Your task to perform on an android device: Add razer blackwidow to the cart on walmart.com Image 0: 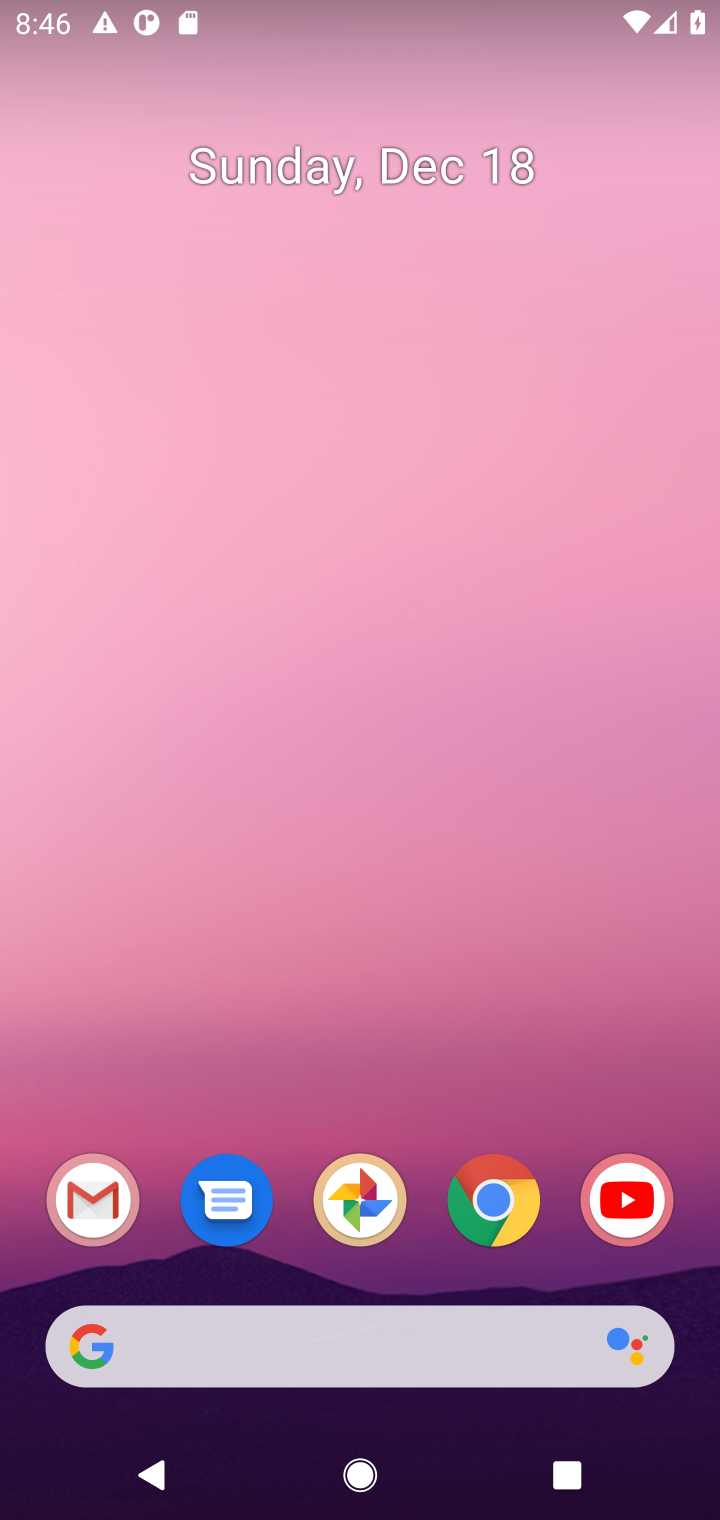
Step 0: click (489, 1209)
Your task to perform on an android device: Add razer blackwidow to the cart on walmart.com Image 1: 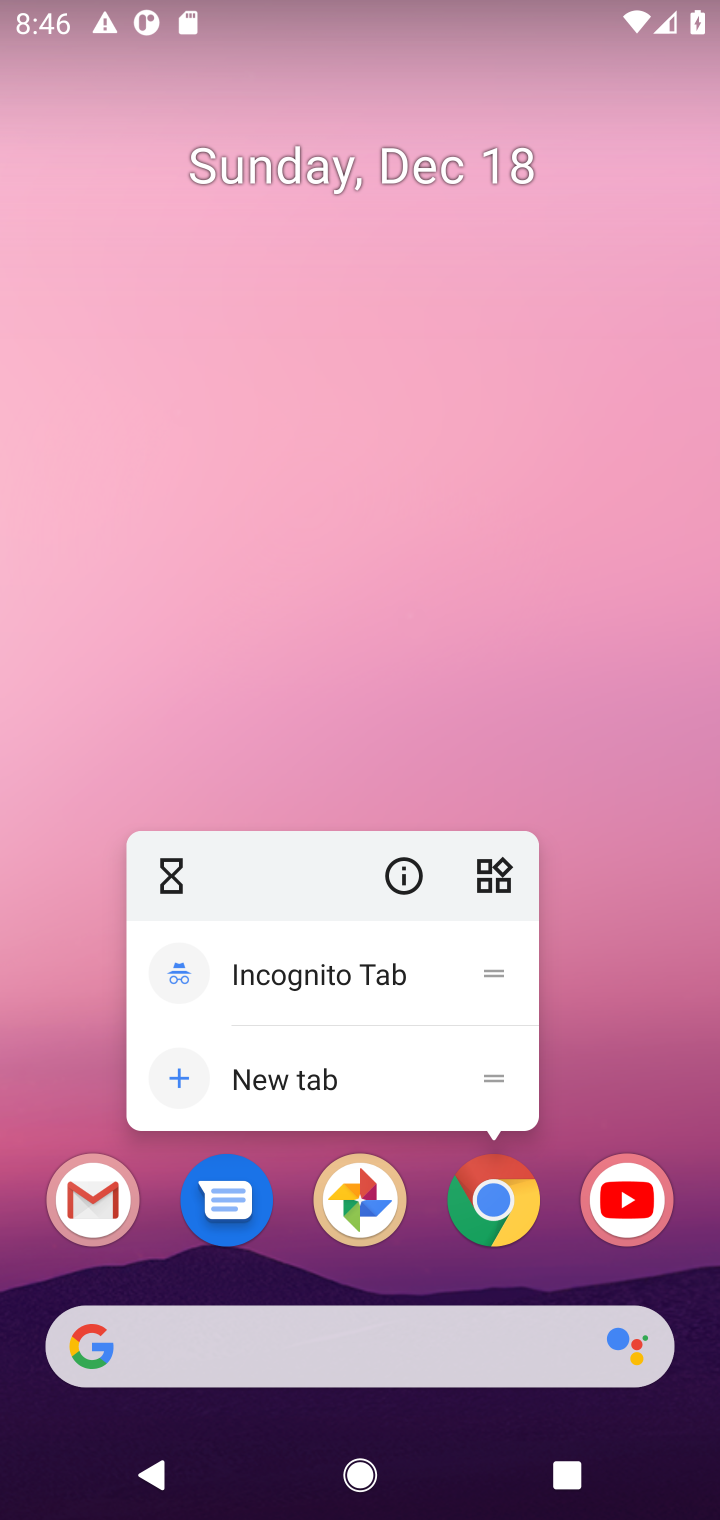
Step 1: click (489, 1209)
Your task to perform on an android device: Add razer blackwidow to the cart on walmart.com Image 2: 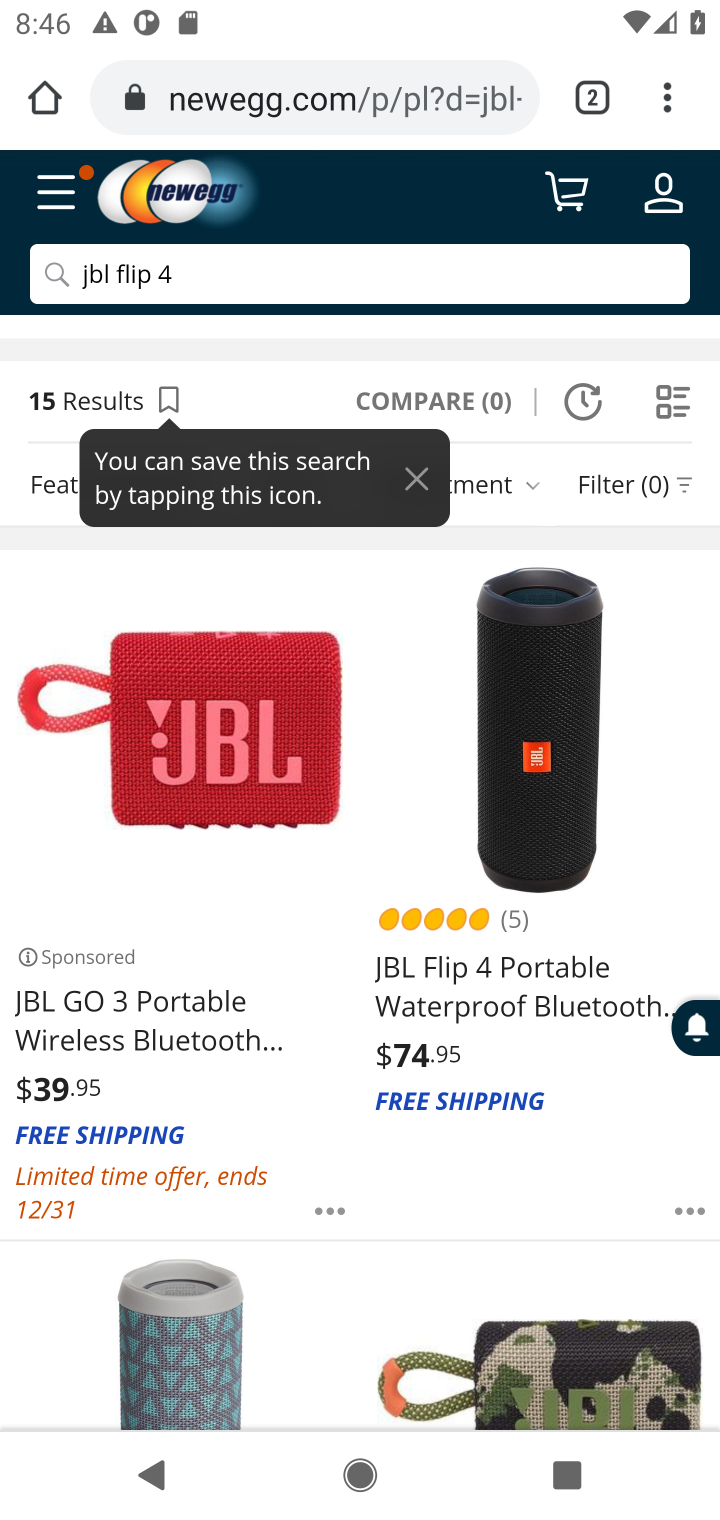
Step 2: click (205, 99)
Your task to perform on an android device: Add razer blackwidow to the cart on walmart.com Image 3: 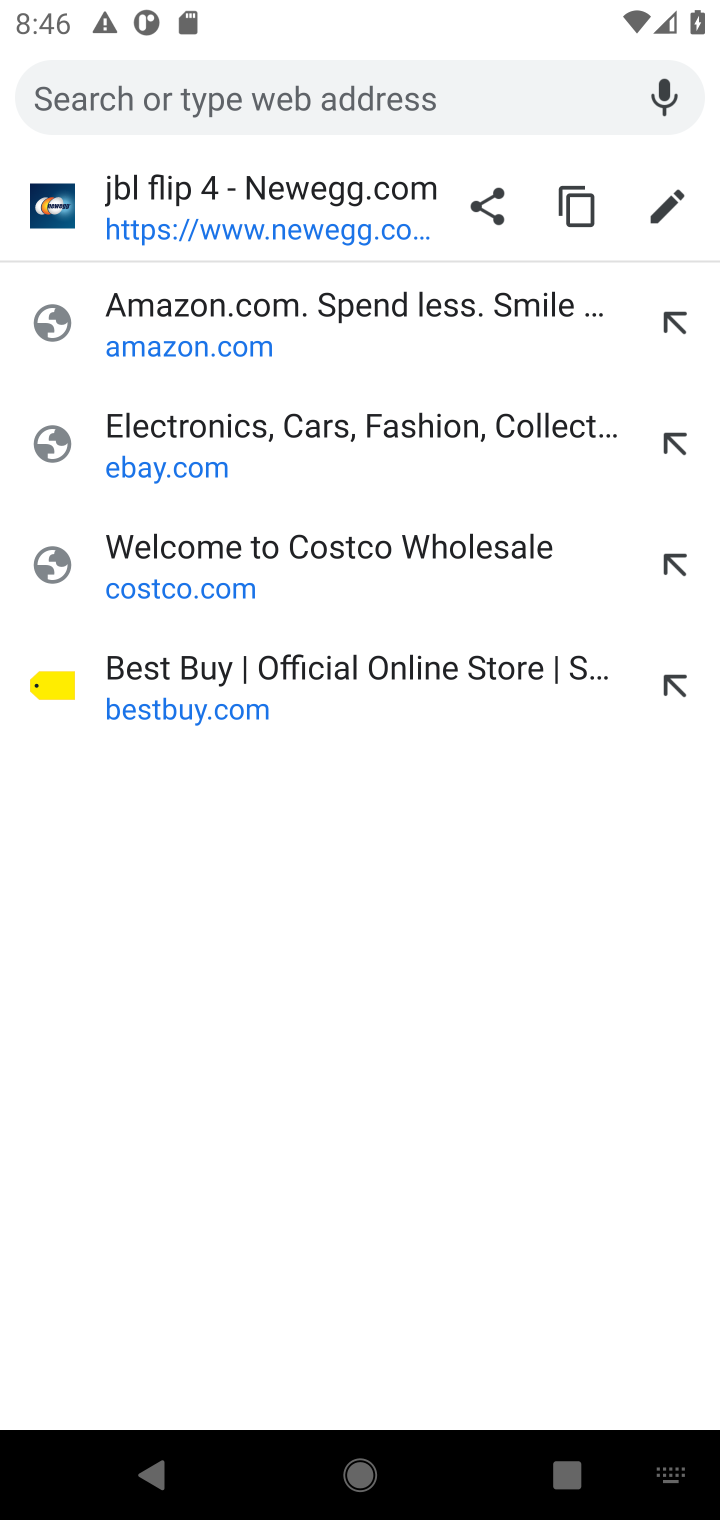
Step 3: type "walmart.com"
Your task to perform on an android device: Add razer blackwidow to the cart on walmart.com Image 4: 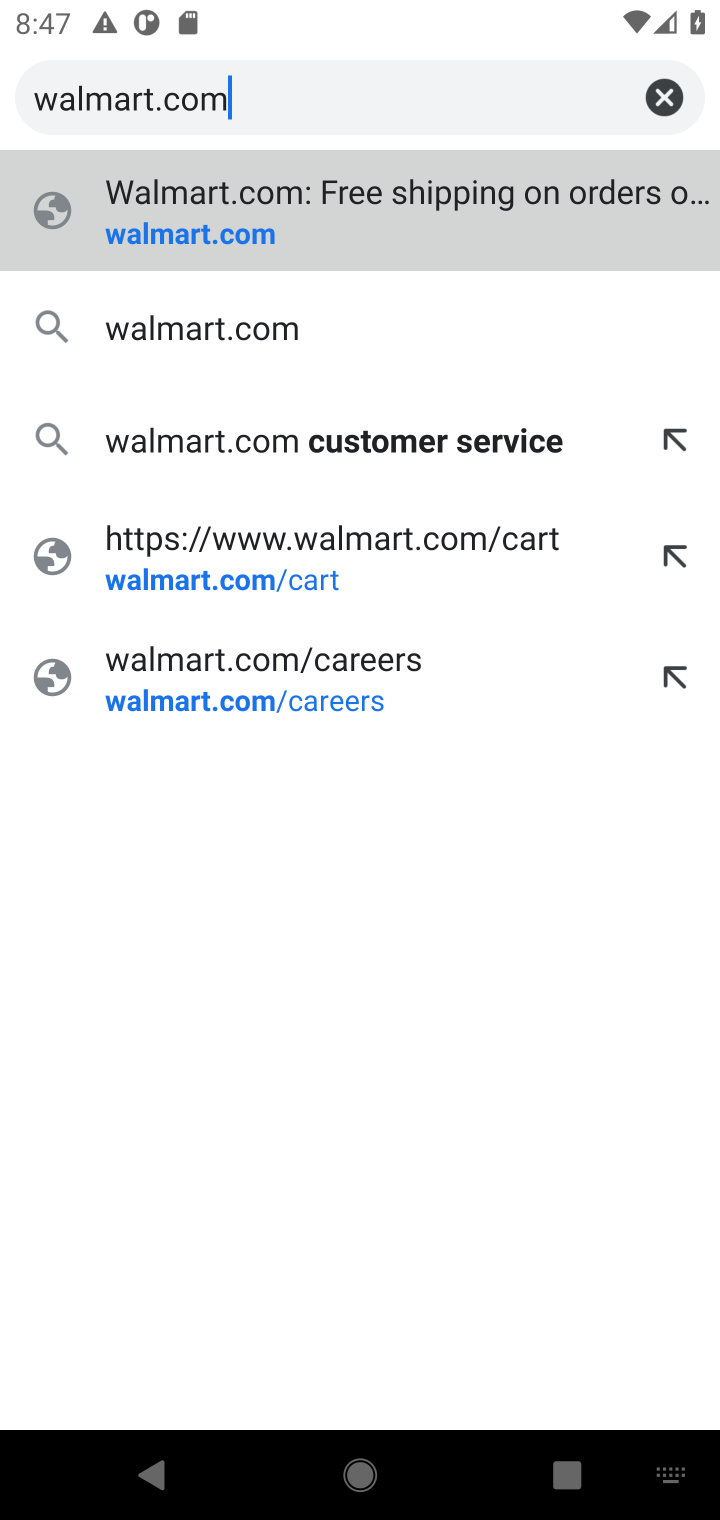
Step 4: click (142, 239)
Your task to perform on an android device: Add razer blackwidow to the cart on walmart.com Image 5: 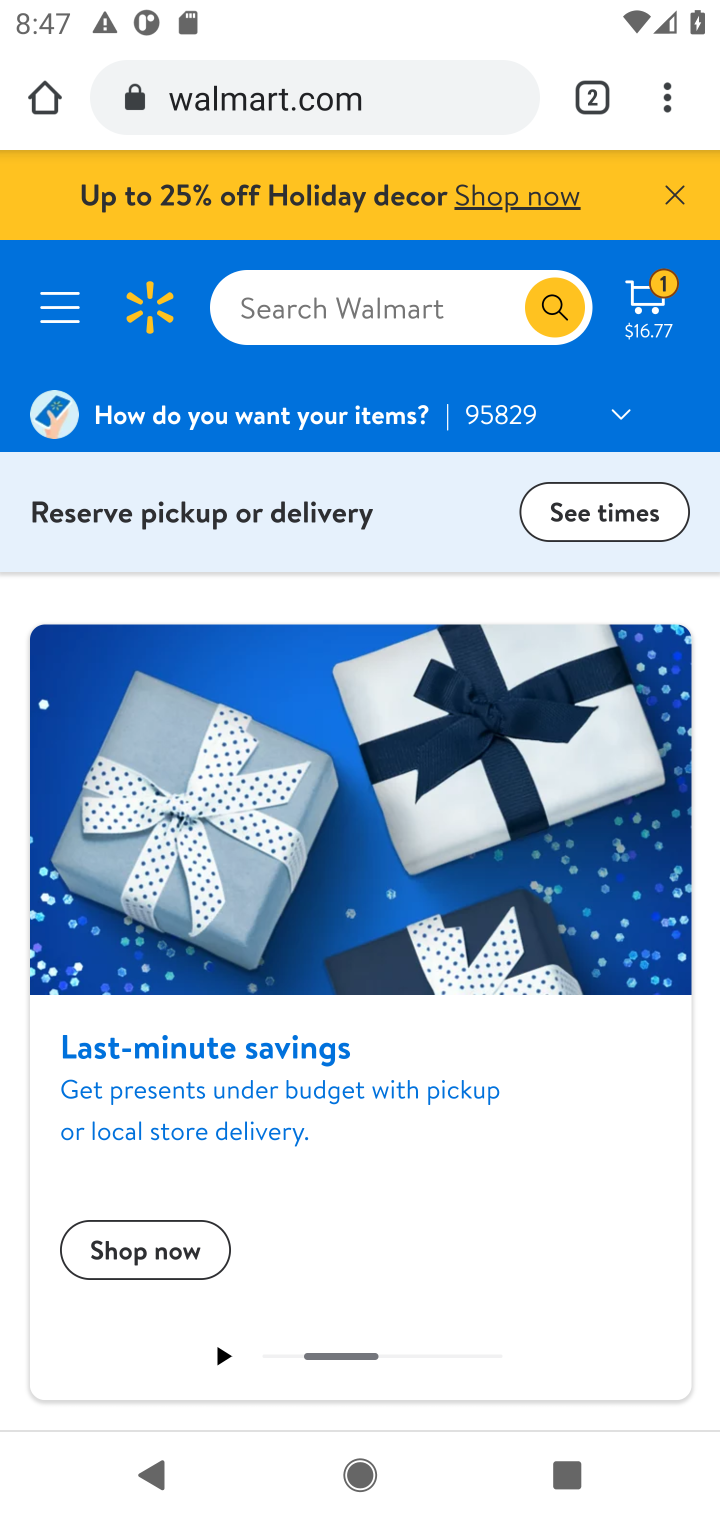
Step 5: click (309, 319)
Your task to perform on an android device: Add razer blackwidow to the cart on walmart.com Image 6: 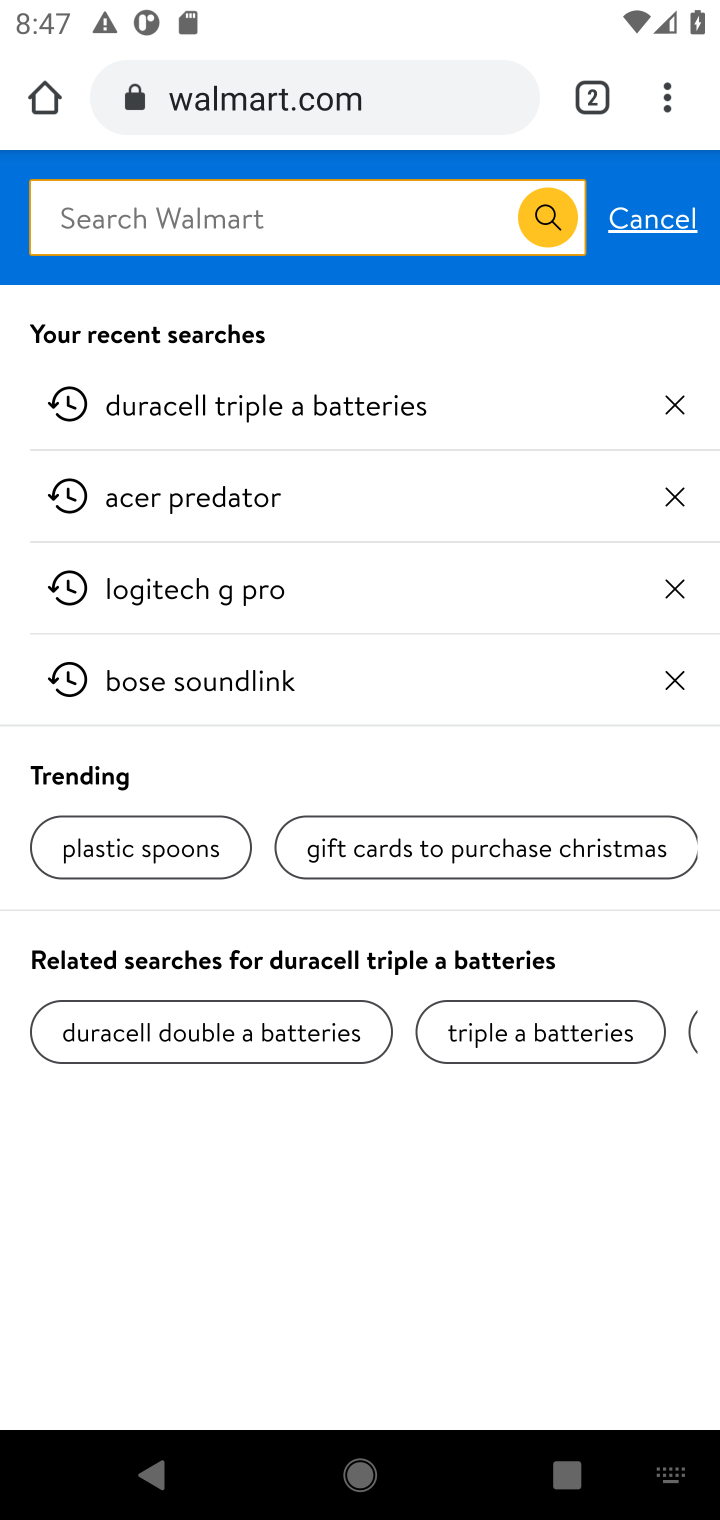
Step 6: type "razer blackwidow"
Your task to perform on an android device: Add razer blackwidow to the cart on walmart.com Image 7: 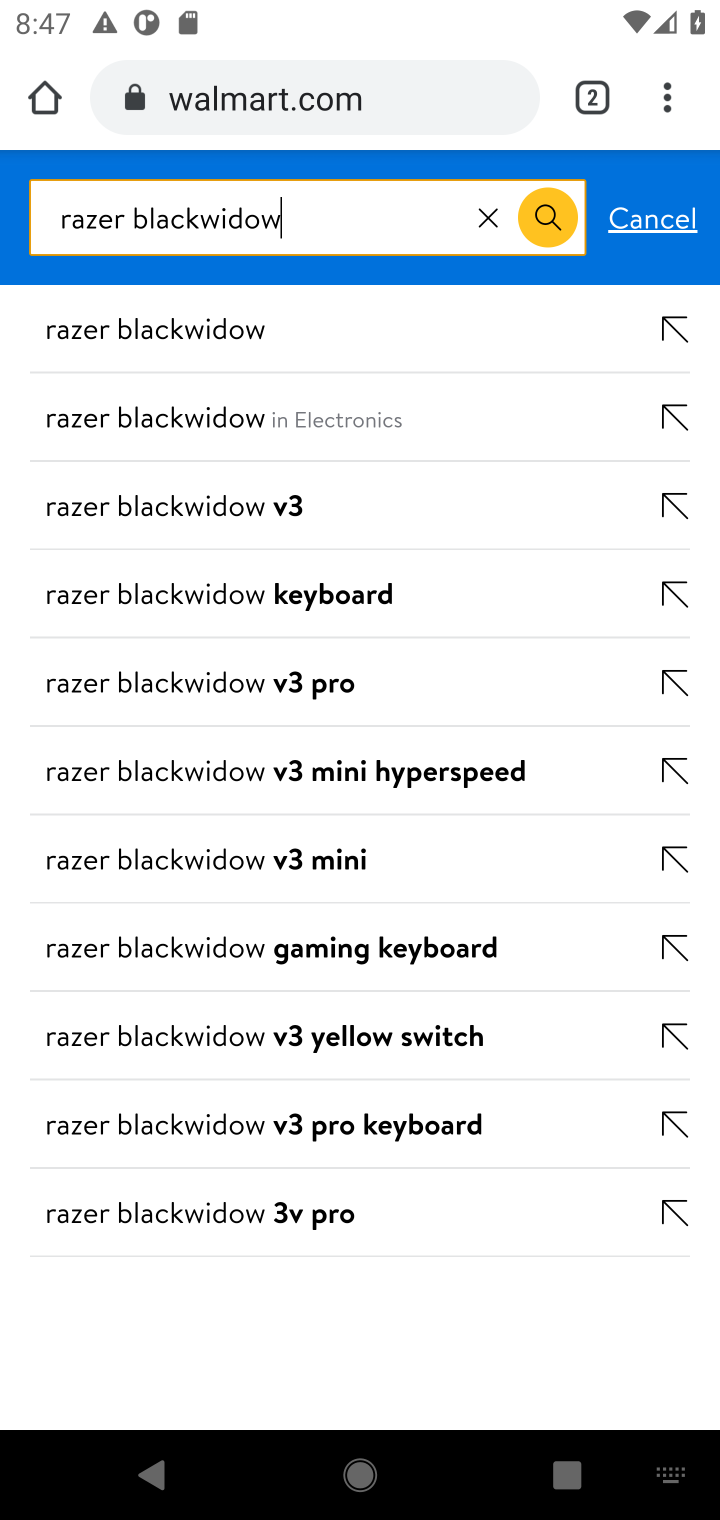
Step 7: click (112, 319)
Your task to perform on an android device: Add razer blackwidow to the cart on walmart.com Image 8: 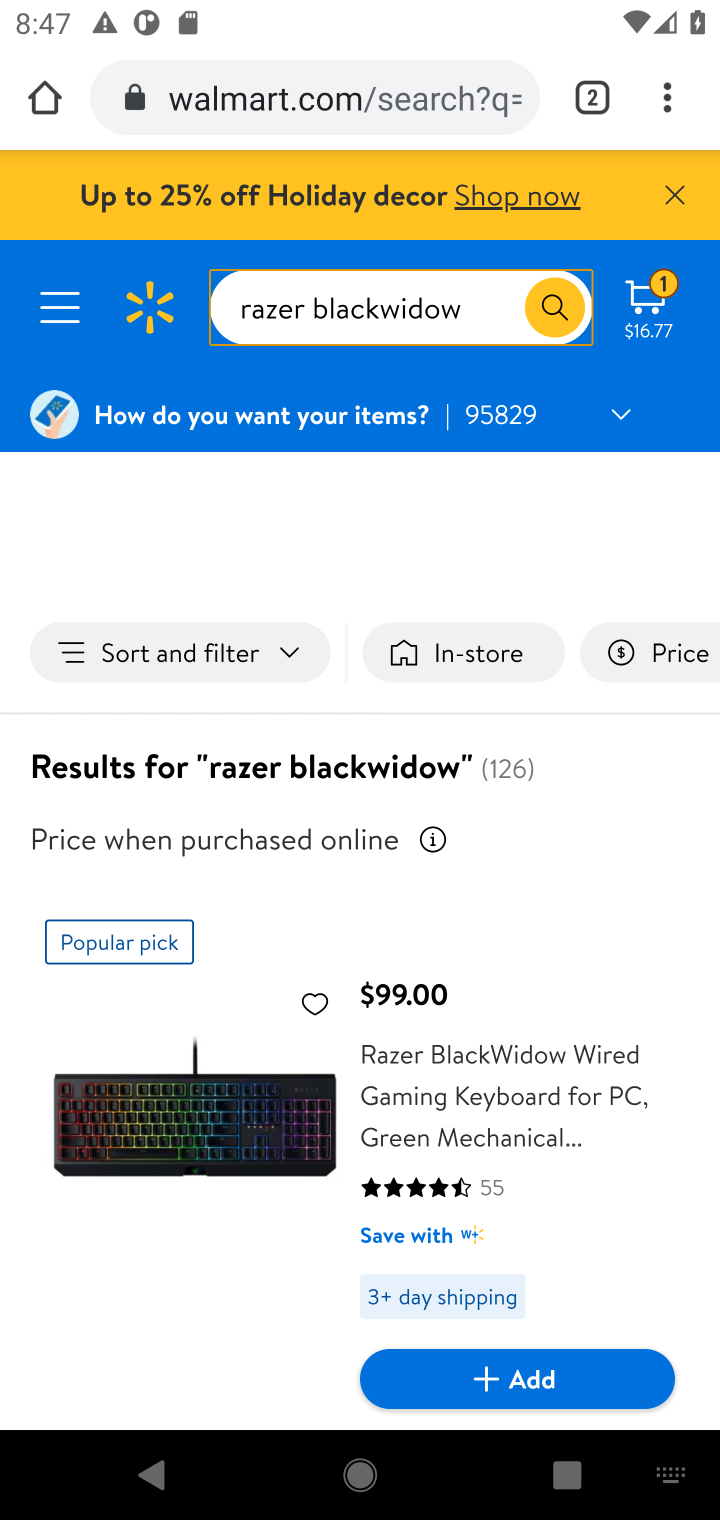
Step 8: drag from (392, 1096) to (379, 785)
Your task to perform on an android device: Add razer blackwidow to the cart on walmart.com Image 9: 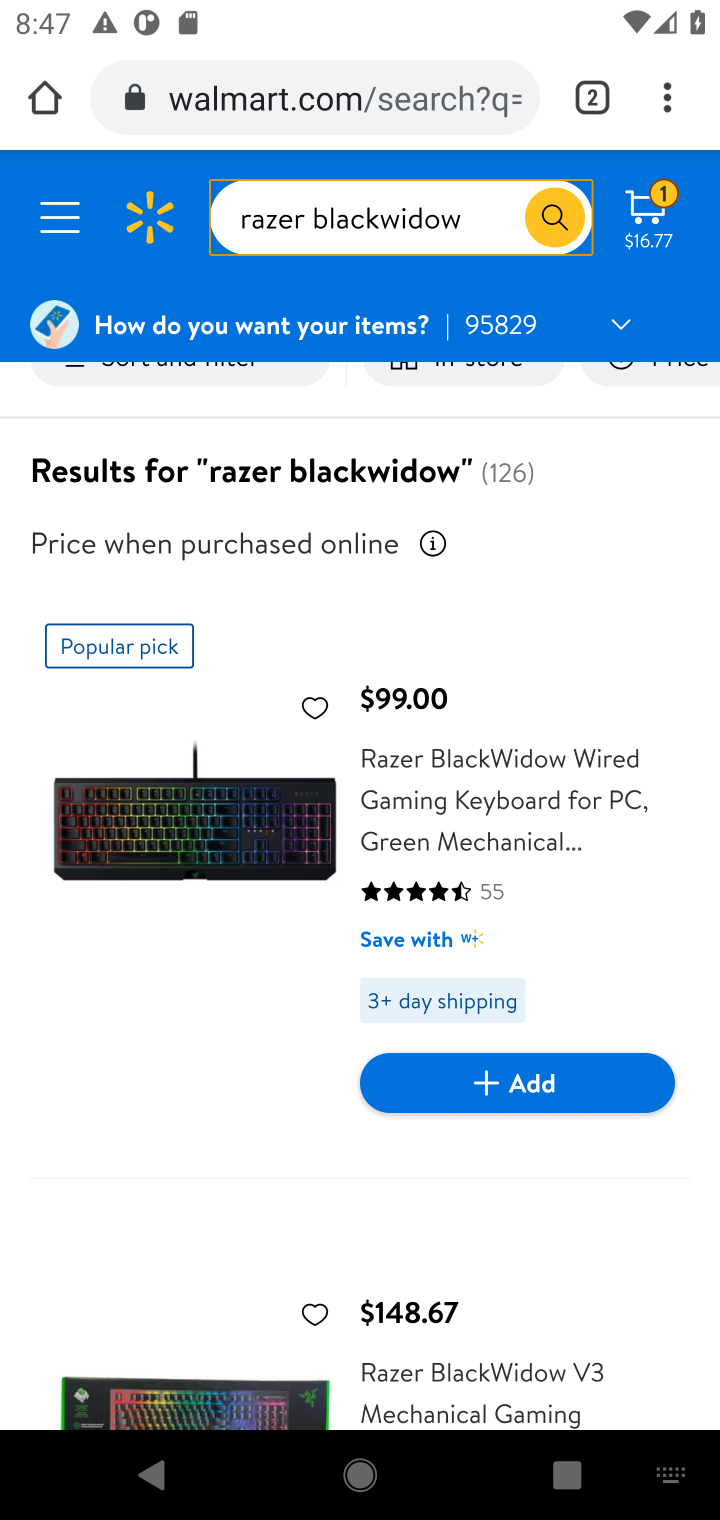
Step 9: click (511, 1089)
Your task to perform on an android device: Add razer blackwidow to the cart on walmart.com Image 10: 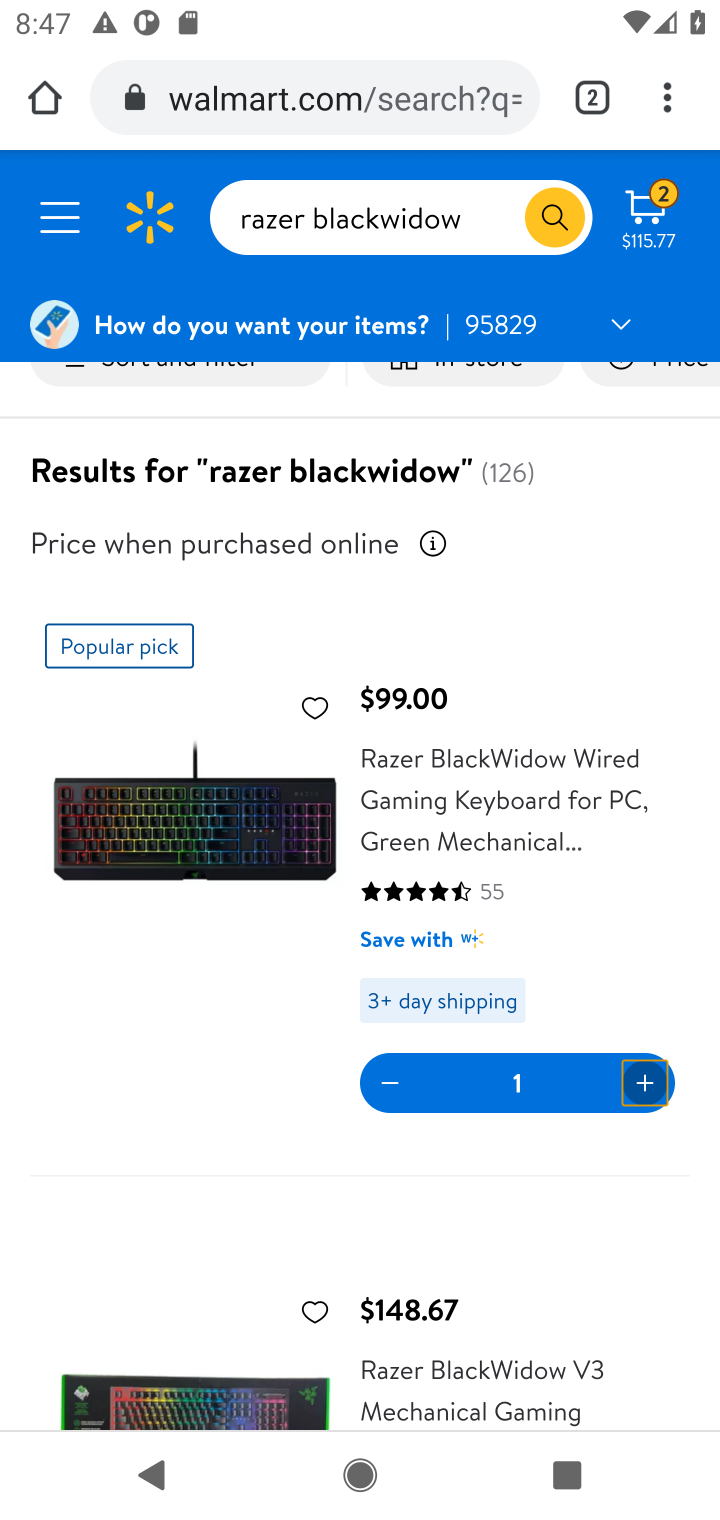
Step 10: task complete